Your task to perform on an android device: Turn on the flashlight Image 0: 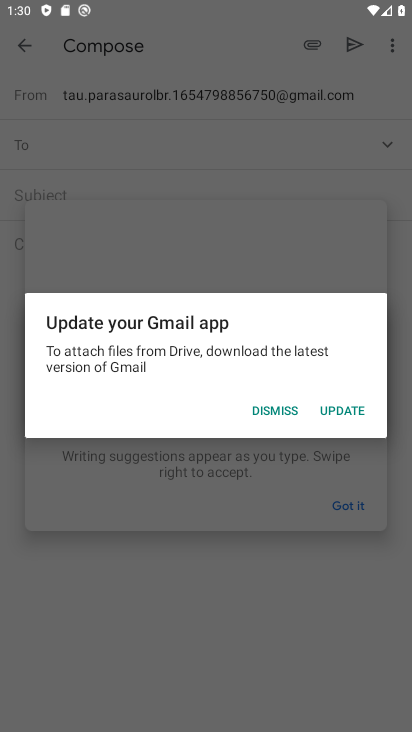
Step 0: press home button
Your task to perform on an android device: Turn on the flashlight Image 1: 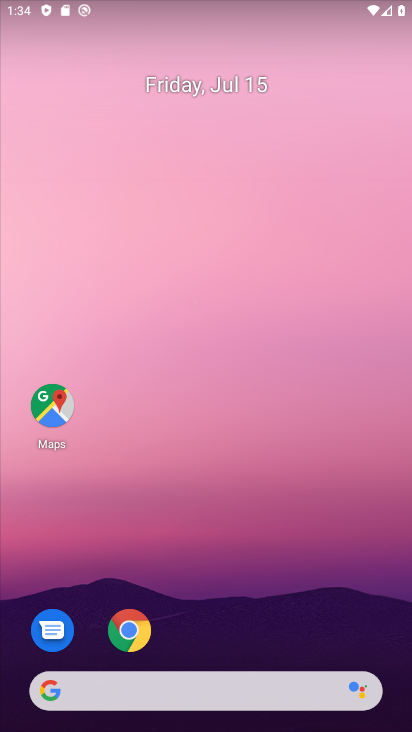
Step 1: drag from (228, 616) to (237, 256)
Your task to perform on an android device: Turn on the flashlight Image 2: 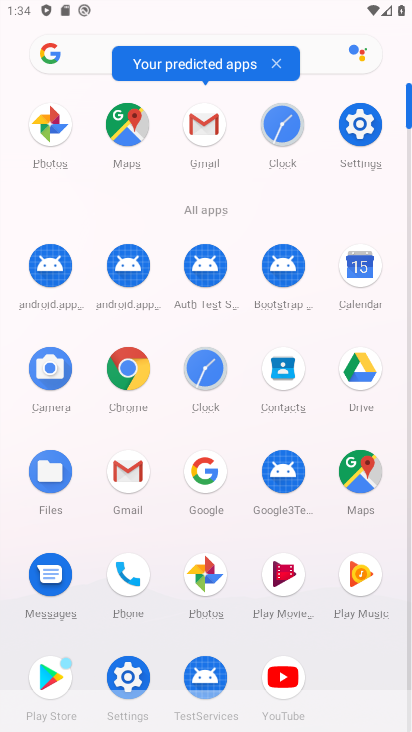
Step 2: click (359, 128)
Your task to perform on an android device: Turn on the flashlight Image 3: 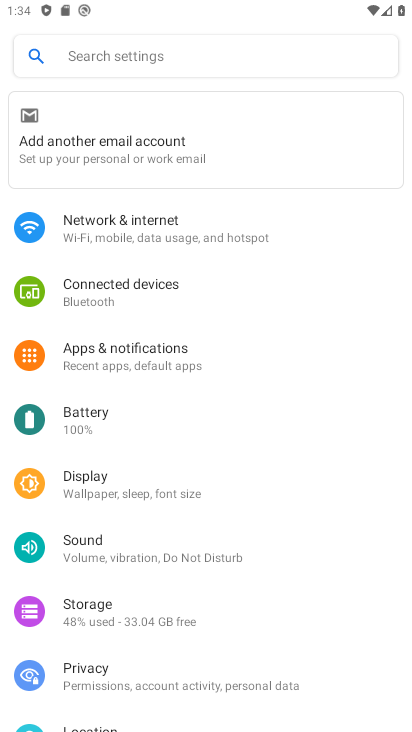
Step 3: task complete